Your task to perform on an android device: Set the phone to "Do not disturb". Image 0: 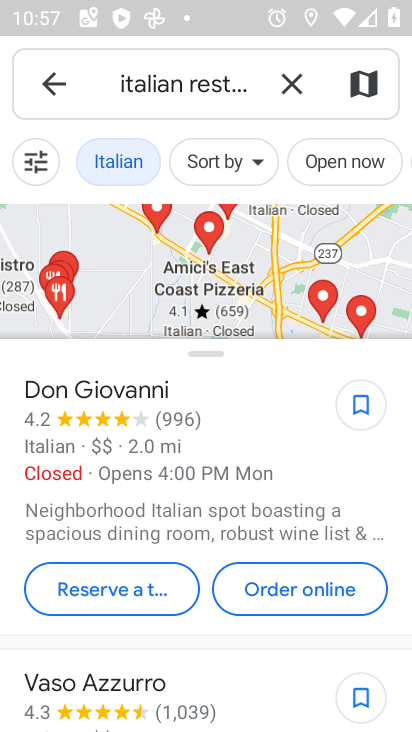
Step 0: press home button
Your task to perform on an android device: Set the phone to "Do not disturb". Image 1: 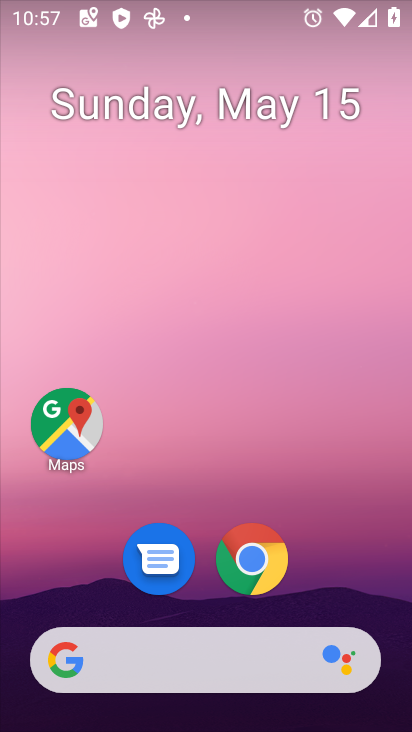
Step 1: drag from (334, 595) to (296, 136)
Your task to perform on an android device: Set the phone to "Do not disturb". Image 2: 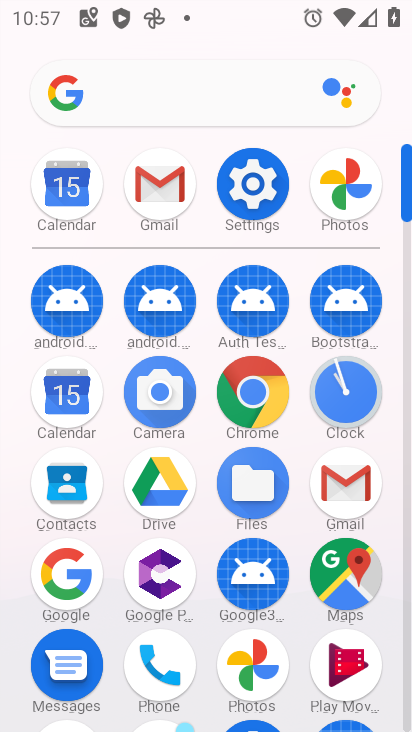
Step 2: click (247, 164)
Your task to perform on an android device: Set the phone to "Do not disturb". Image 3: 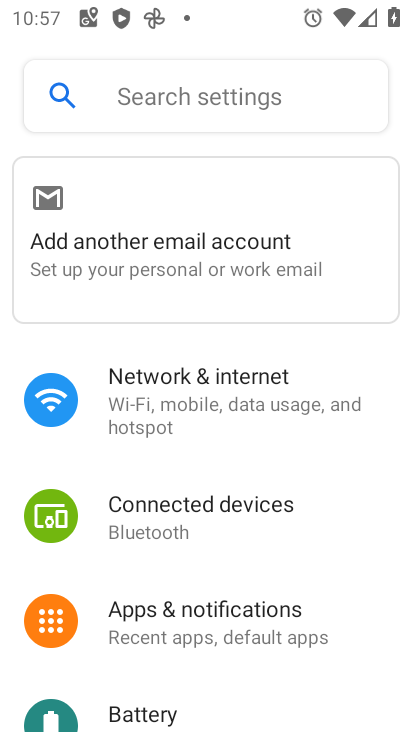
Step 3: drag from (228, 626) to (262, 234)
Your task to perform on an android device: Set the phone to "Do not disturb". Image 4: 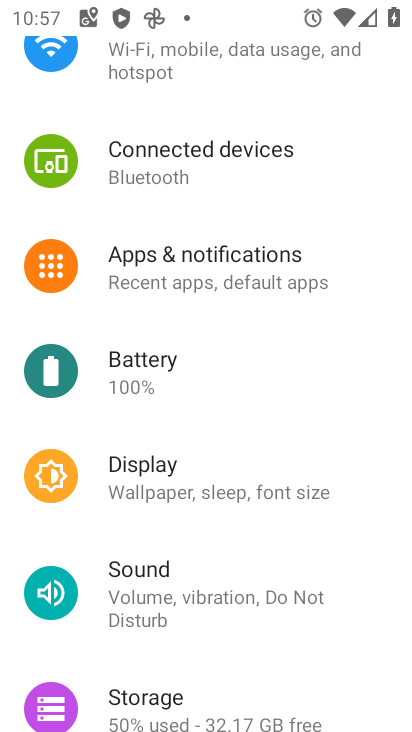
Step 4: click (251, 577)
Your task to perform on an android device: Set the phone to "Do not disturb". Image 5: 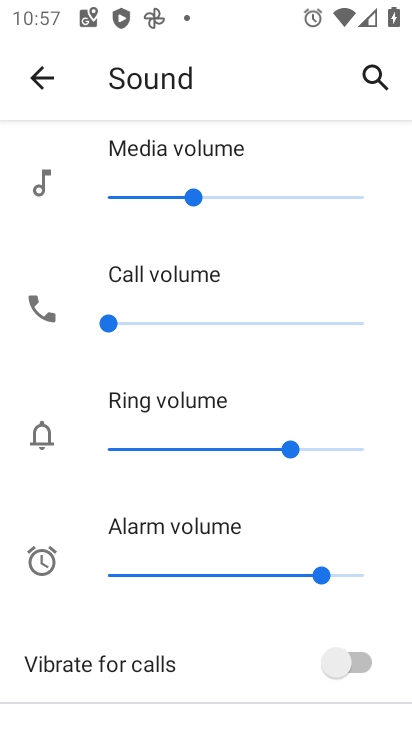
Step 5: drag from (107, 662) to (205, 248)
Your task to perform on an android device: Set the phone to "Do not disturb". Image 6: 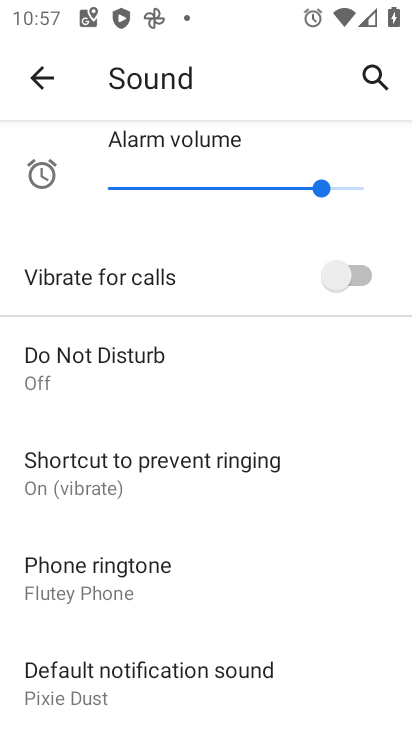
Step 6: click (161, 365)
Your task to perform on an android device: Set the phone to "Do not disturb". Image 7: 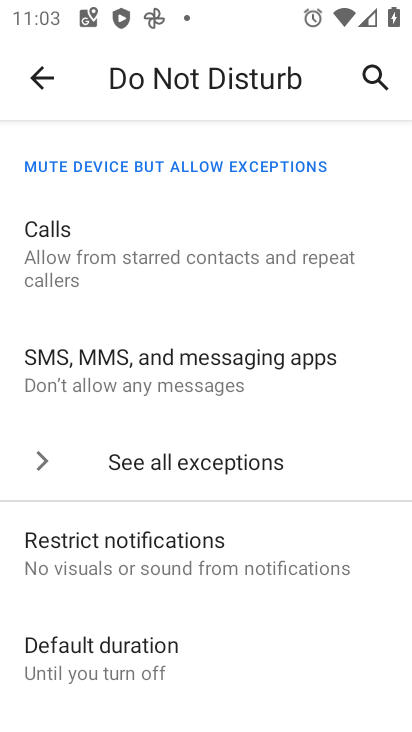
Step 7: drag from (110, 368) to (107, 588)
Your task to perform on an android device: Set the phone to "Do not disturb". Image 8: 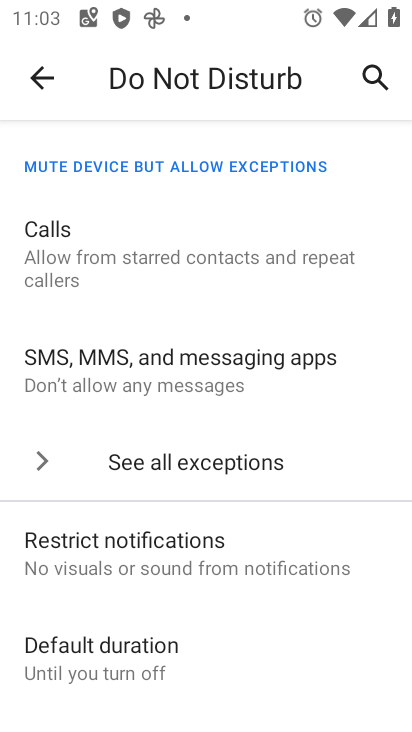
Step 8: drag from (151, 549) to (199, 80)
Your task to perform on an android device: Set the phone to "Do not disturb". Image 9: 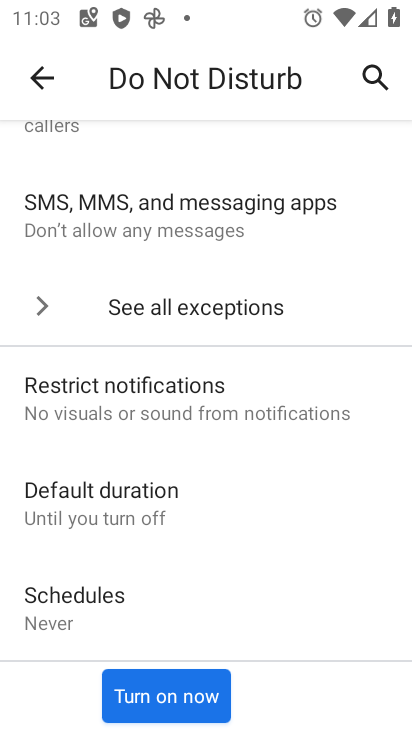
Step 9: click (173, 699)
Your task to perform on an android device: Set the phone to "Do not disturb". Image 10: 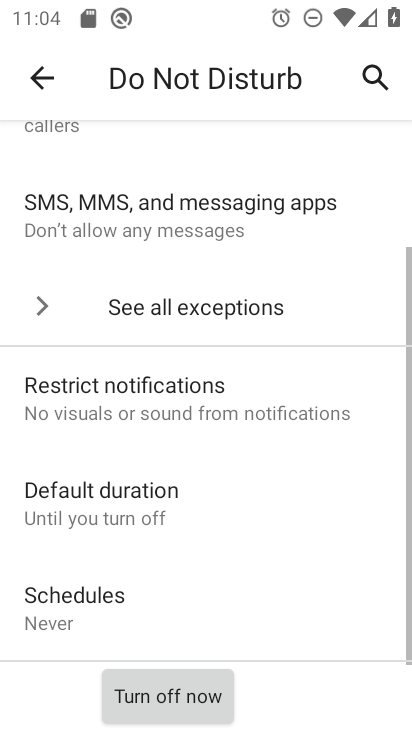
Step 10: task complete